Your task to perform on an android device: Open Wikipedia Image 0: 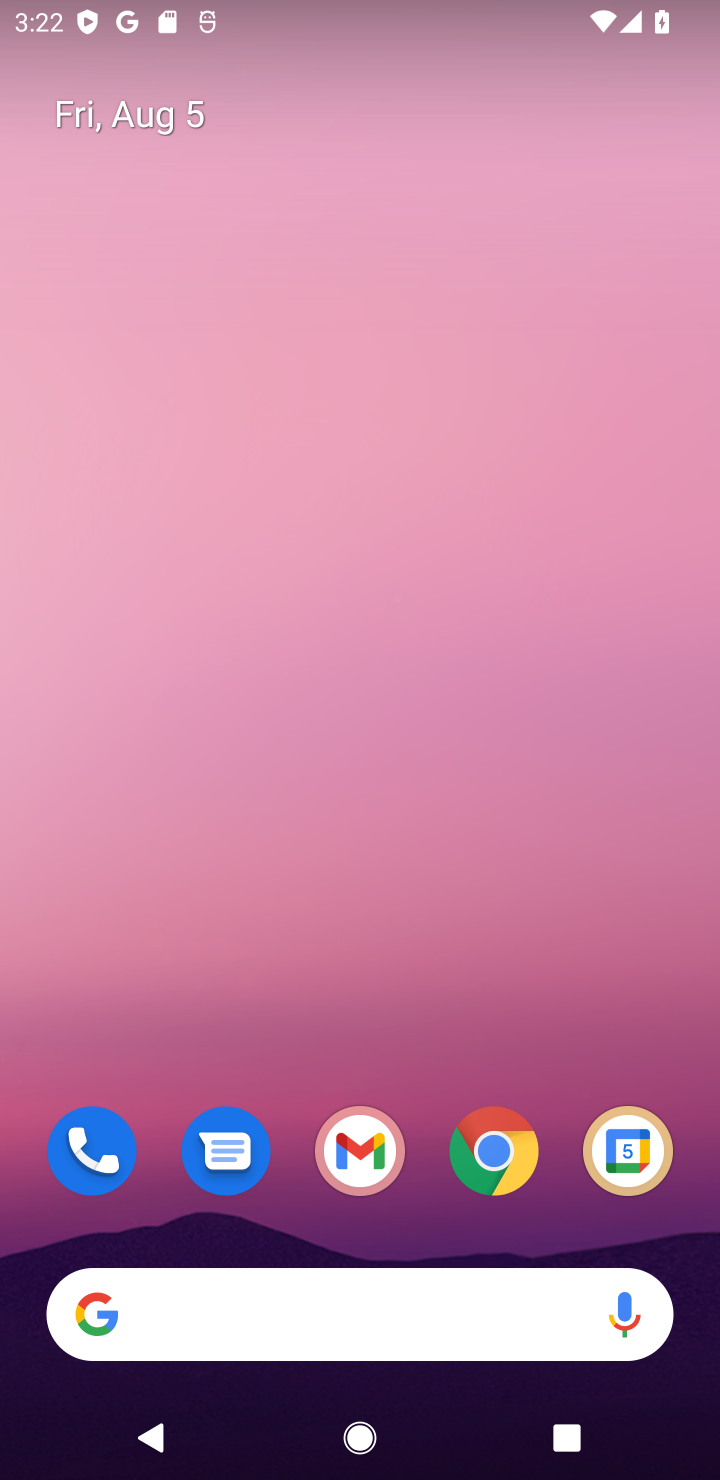
Step 0: click (471, 1124)
Your task to perform on an android device: Open Wikipedia Image 1: 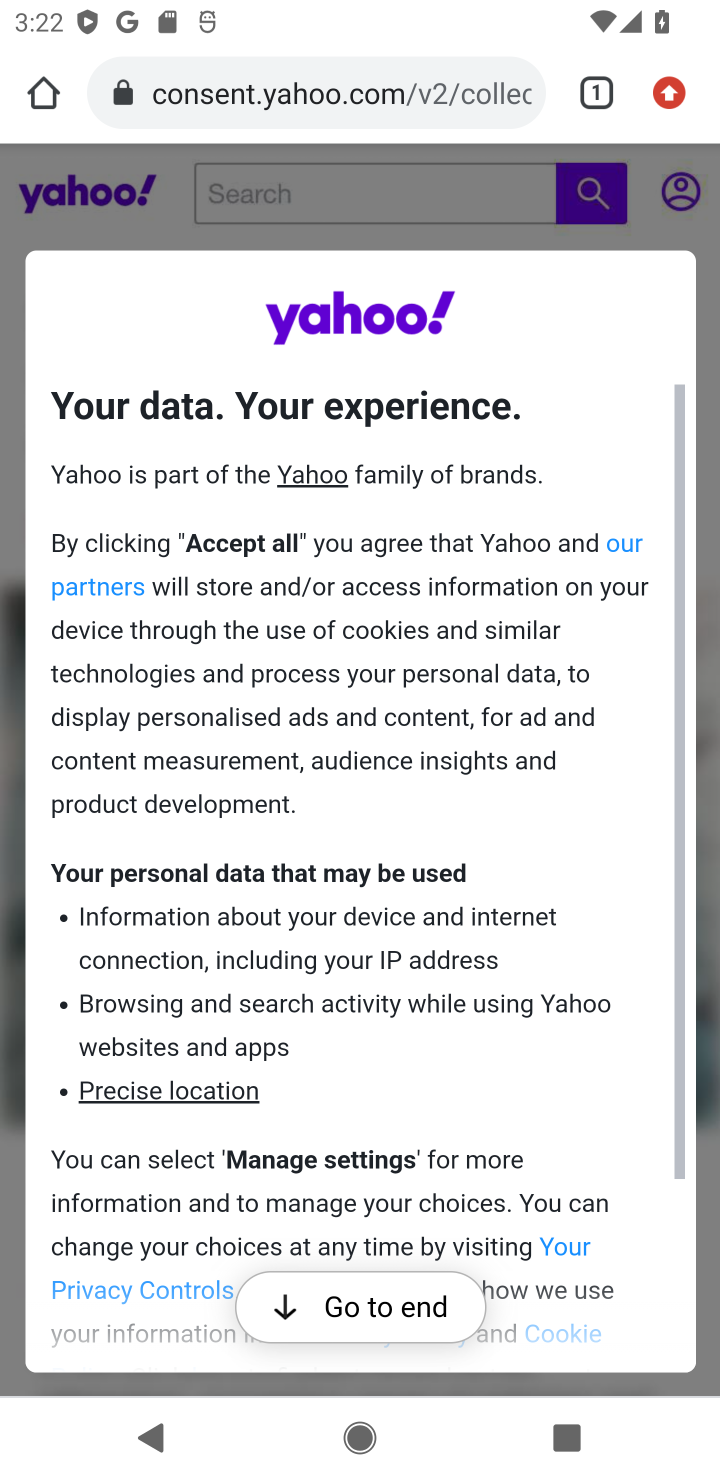
Step 1: click (303, 100)
Your task to perform on an android device: Open Wikipedia Image 2: 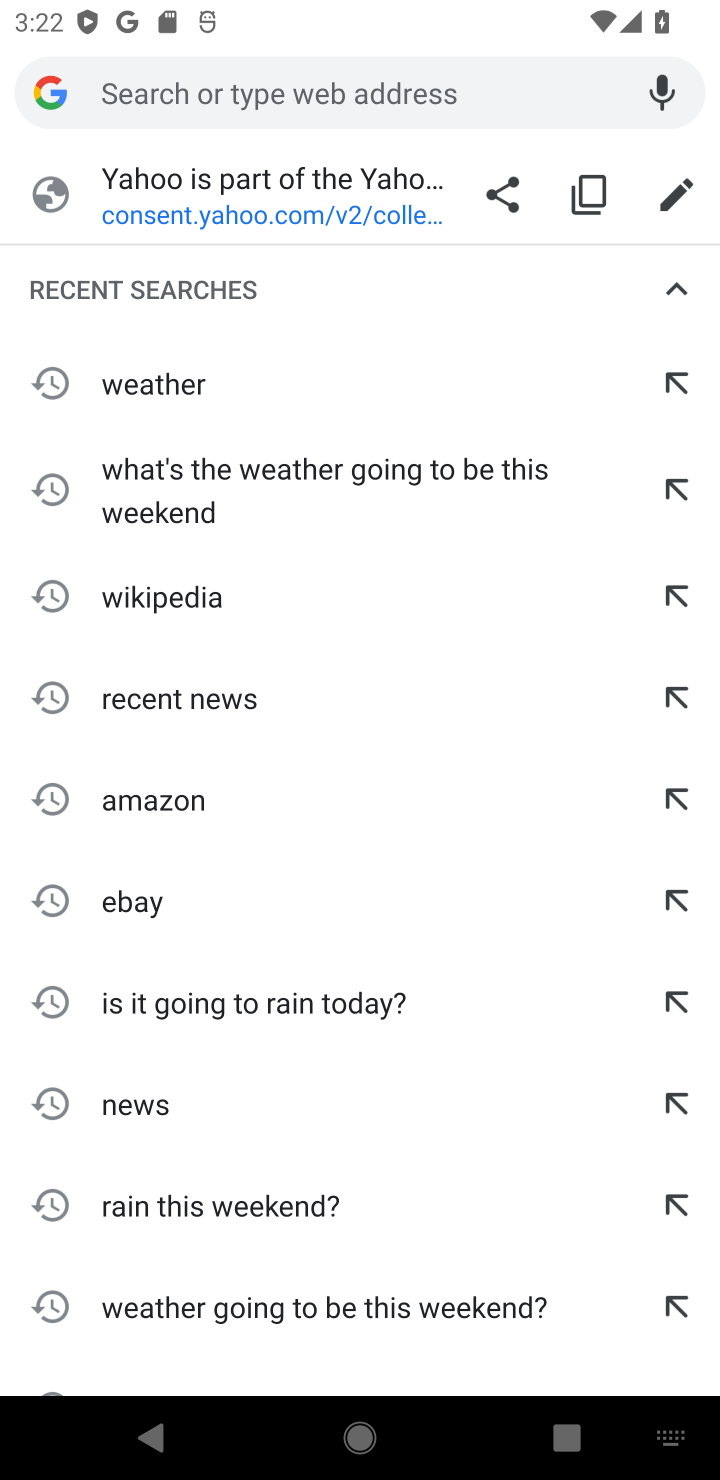
Step 2: type "wikipedia"
Your task to perform on an android device: Open Wikipedia Image 3: 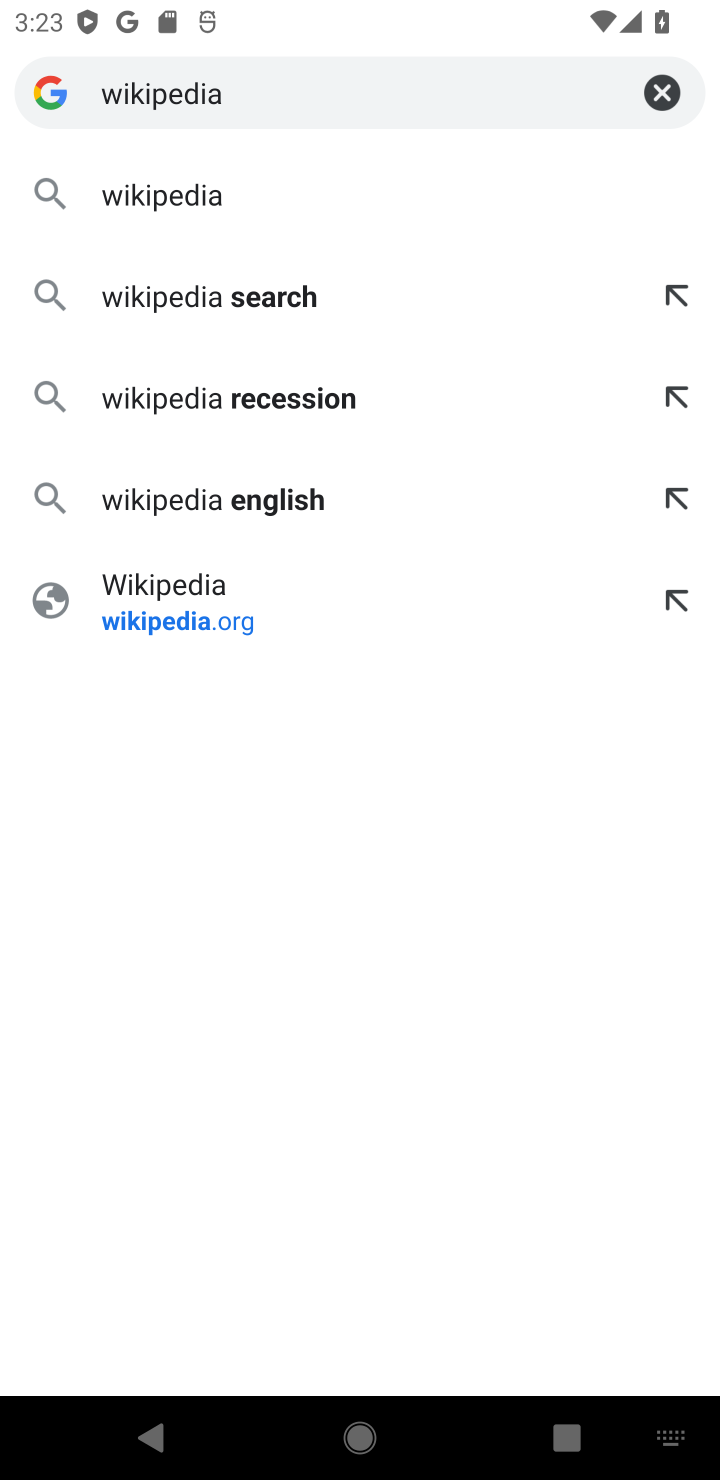
Step 3: click (164, 202)
Your task to perform on an android device: Open Wikipedia Image 4: 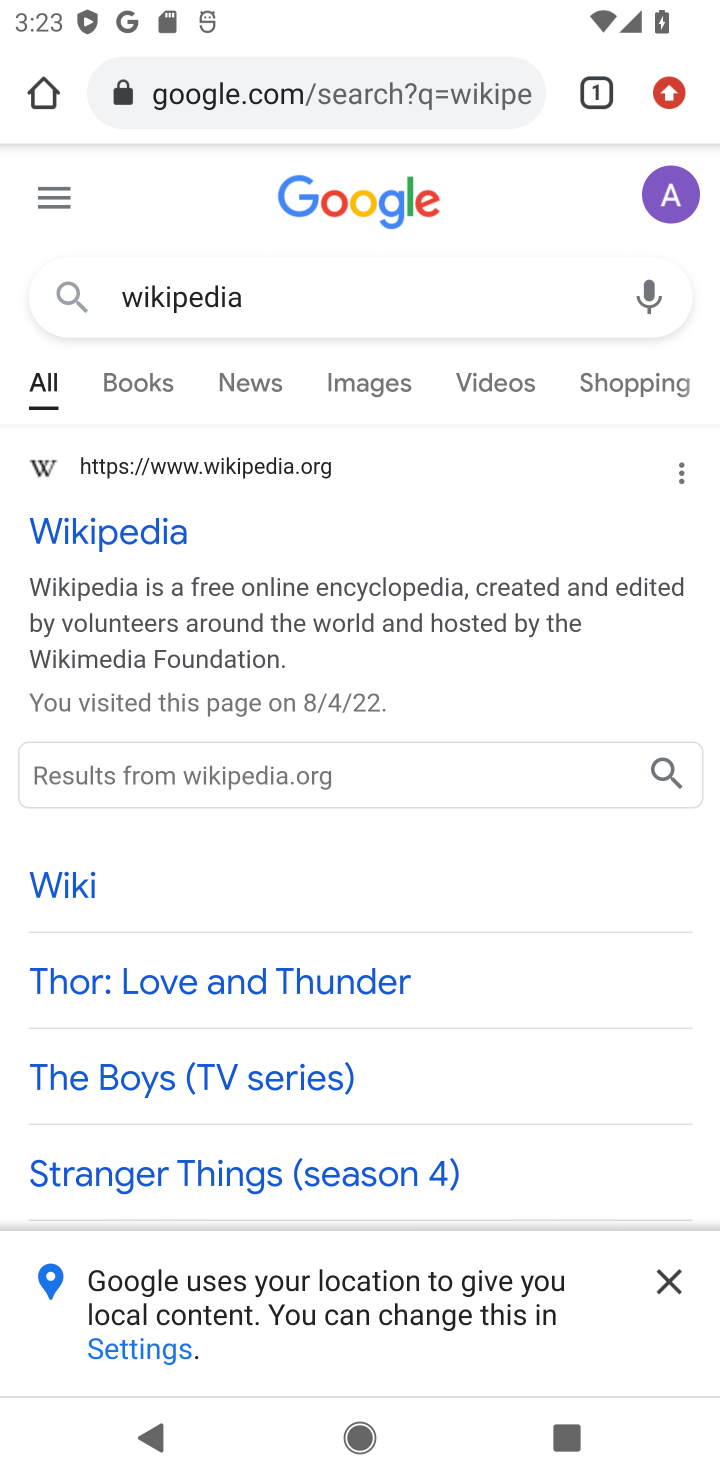
Step 4: click (56, 517)
Your task to perform on an android device: Open Wikipedia Image 5: 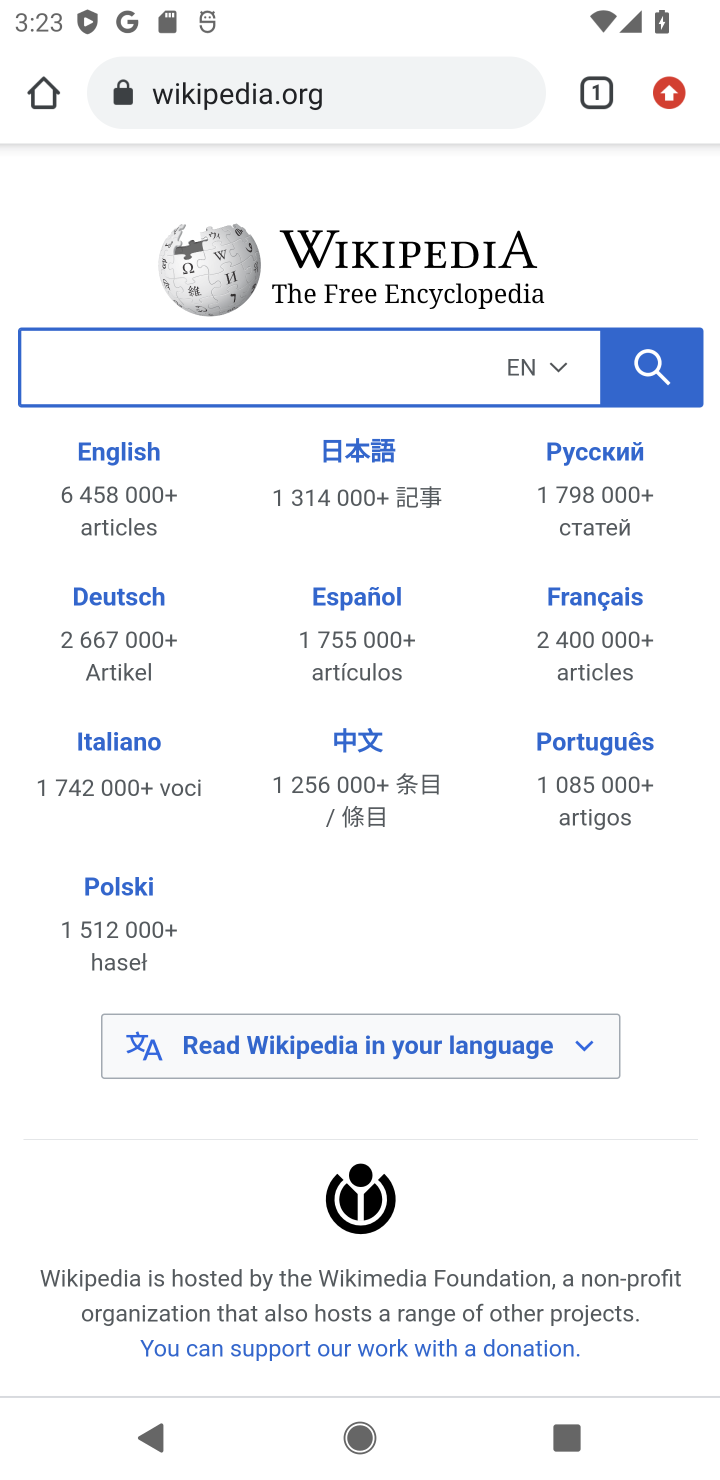
Step 5: task complete